Your task to perform on an android device: empty trash in google photos Image 0: 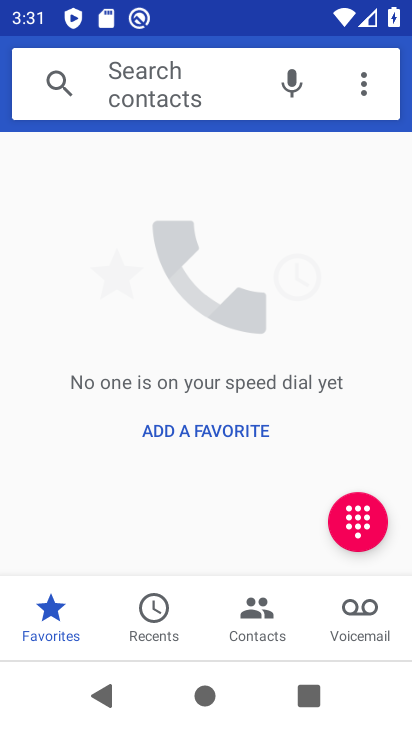
Step 0: press back button
Your task to perform on an android device: empty trash in google photos Image 1: 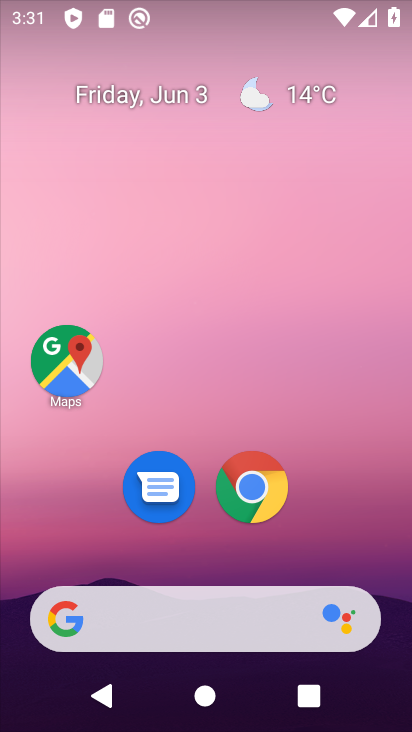
Step 1: drag from (186, 556) to (283, 127)
Your task to perform on an android device: empty trash in google photos Image 2: 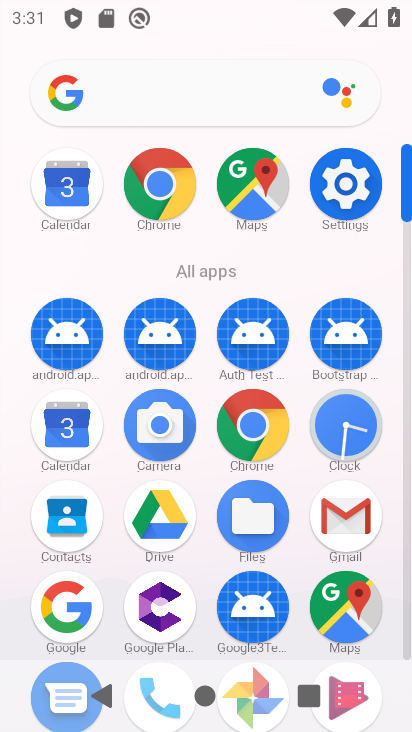
Step 2: click (351, 518)
Your task to perform on an android device: empty trash in google photos Image 3: 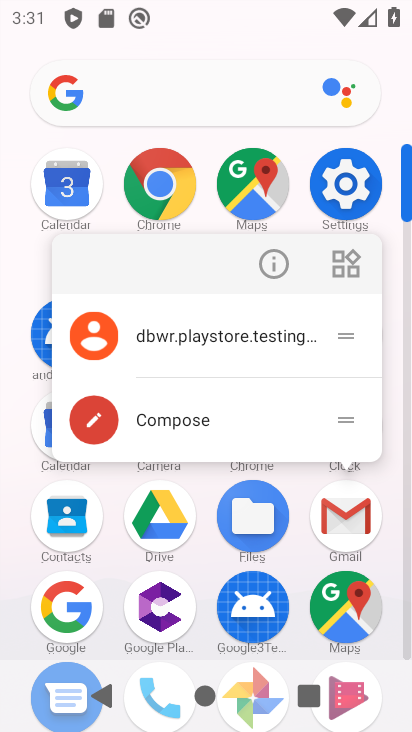
Step 3: drag from (234, 575) to (262, 483)
Your task to perform on an android device: empty trash in google photos Image 4: 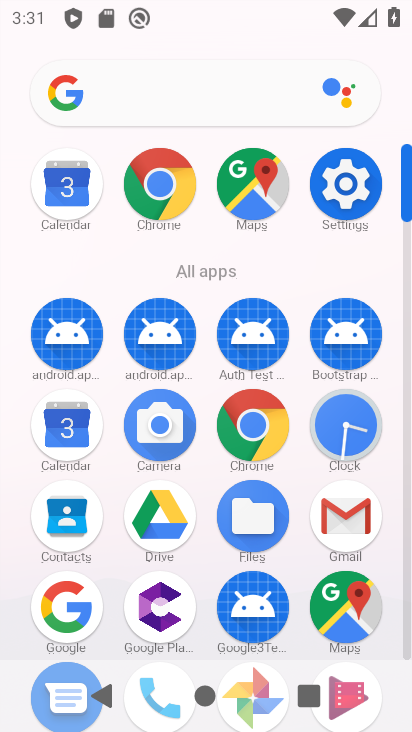
Step 4: drag from (232, 572) to (291, 166)
Your task to perform on an android device: empty trash in google photos Image 5: 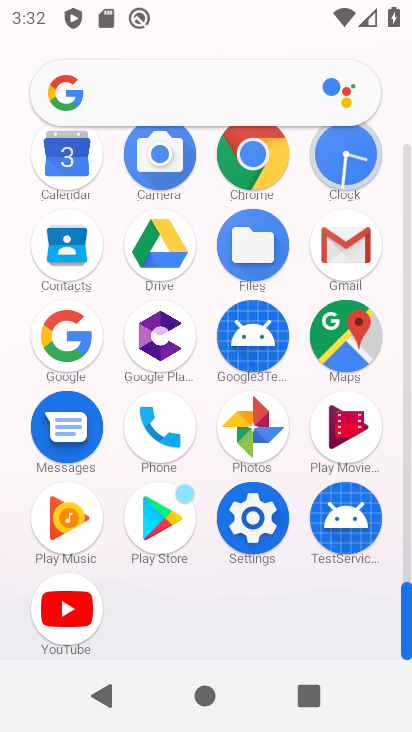
Step 5: click (252, 440)
Your task to perform on an android device: empty trash in google photos Image 6: 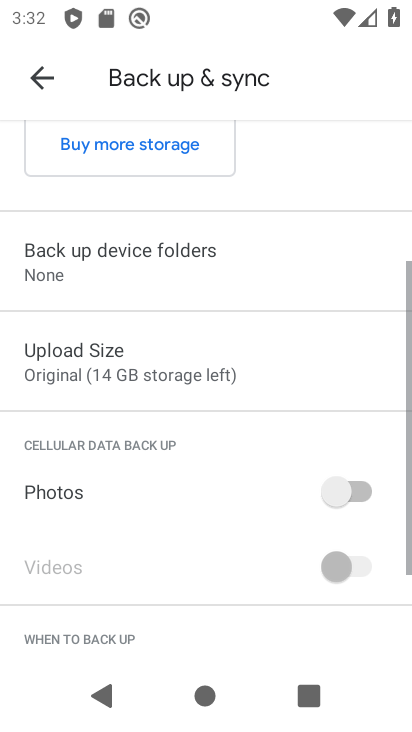
Step 6: click (35, 70)
Your task to perform on an android device: empty trash in google photos Image 7: 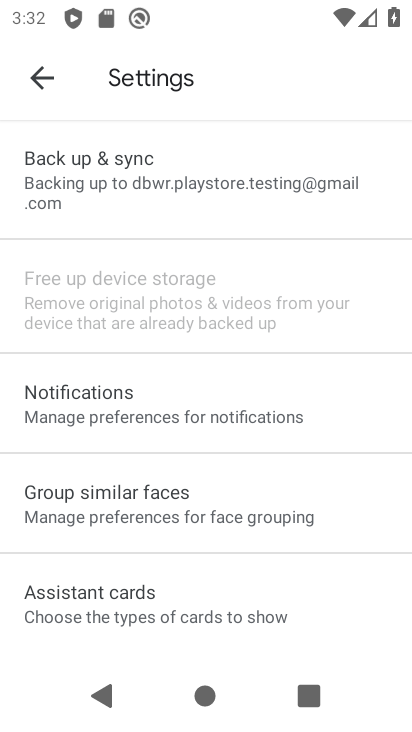
Step 7: click (48, 69)
Your task to perform on an android device: empty trash in google photos Image 8: 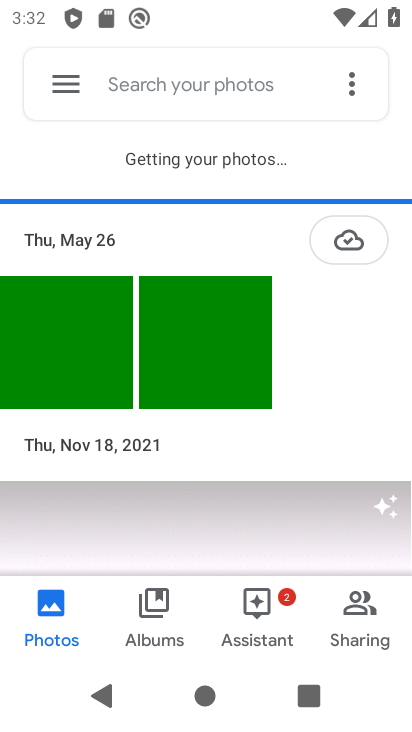
Step 8: click (63, 87)
Your task to perform on an android device: empty trash in google photos Image 9: 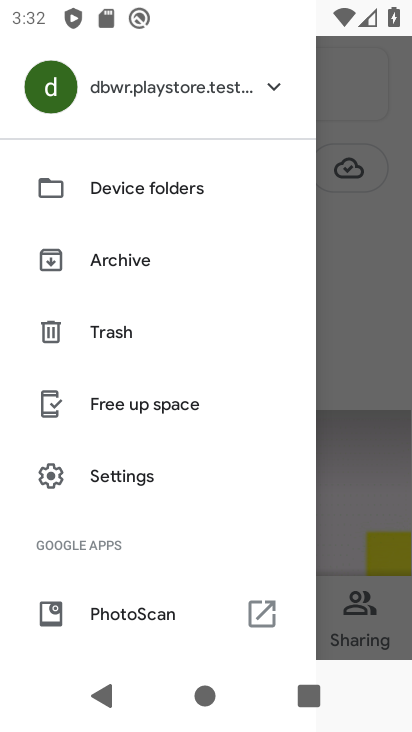
Step 9: click (96, 331)
Your task to perform on an android device: empty trash in google photos Image 10: 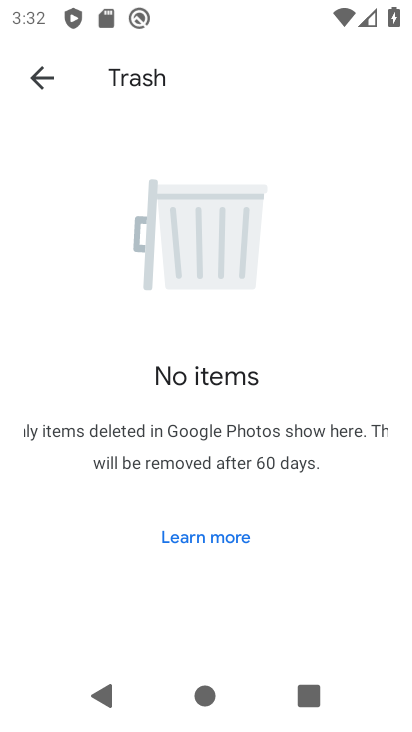
Step 10: task complete